Your task to perform on an android device: Go to internet settings Image 0: 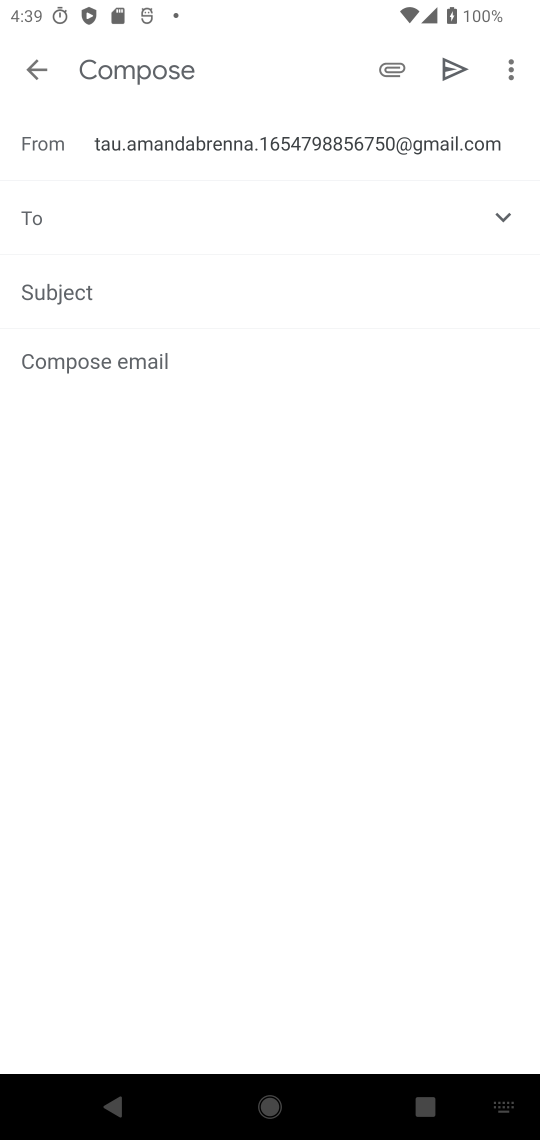
Step 0: press home button
Your task to perform on an android device: Go to internet settings Image 1: 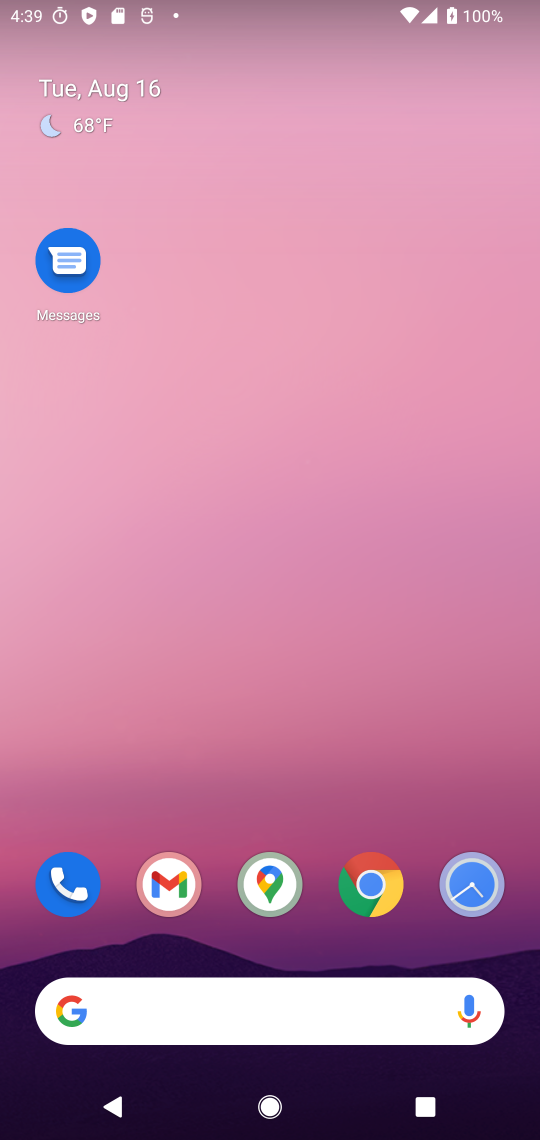
Step 1: drag from (206, 909) to (236, 715)
Your task to perform on an android device: Go to internet settings Image 2: 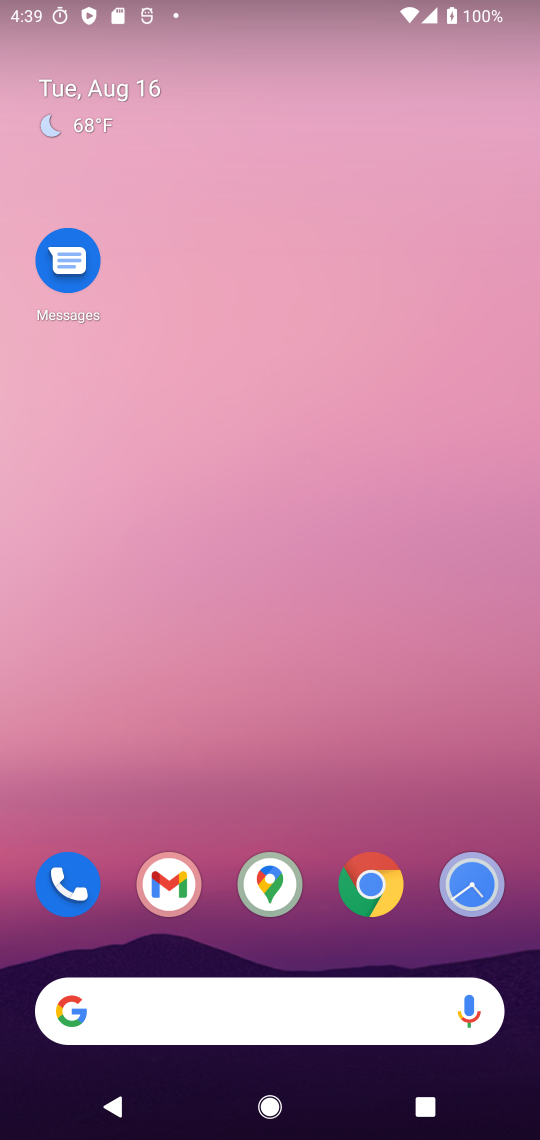
Step 2: drag from (42, 1072) to (348, 469)
Your task to perform on an android device: Go to internet settings Image 3: 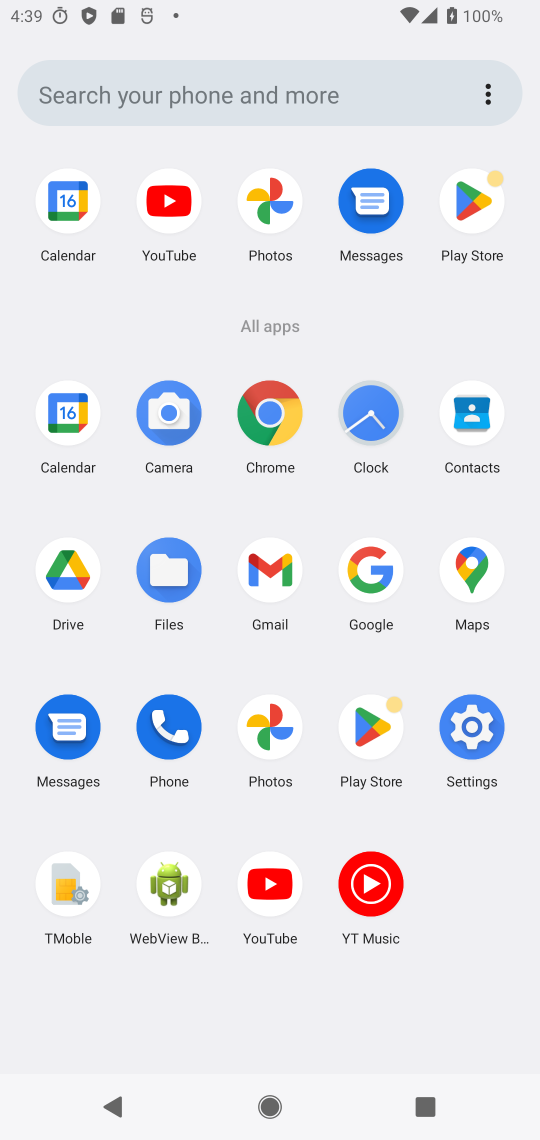
Step 3: click (480, 746)
Your task to perform on an android device: Go to internet settings Image 4: 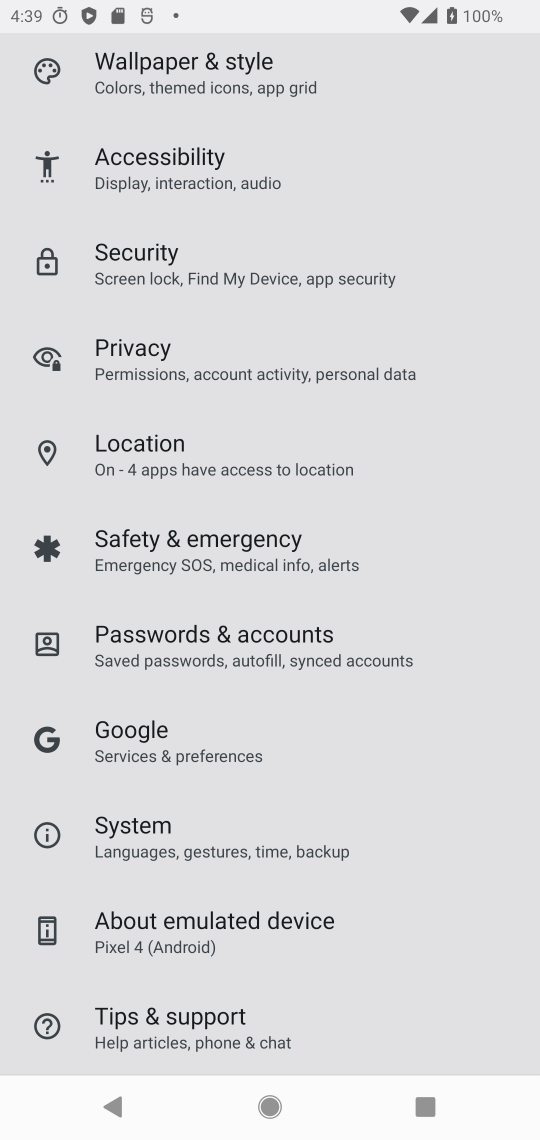
Step 4: drag from (444, 89) to (390, 663)
Your task to perform on an android device: Go to internet settings Image 5: 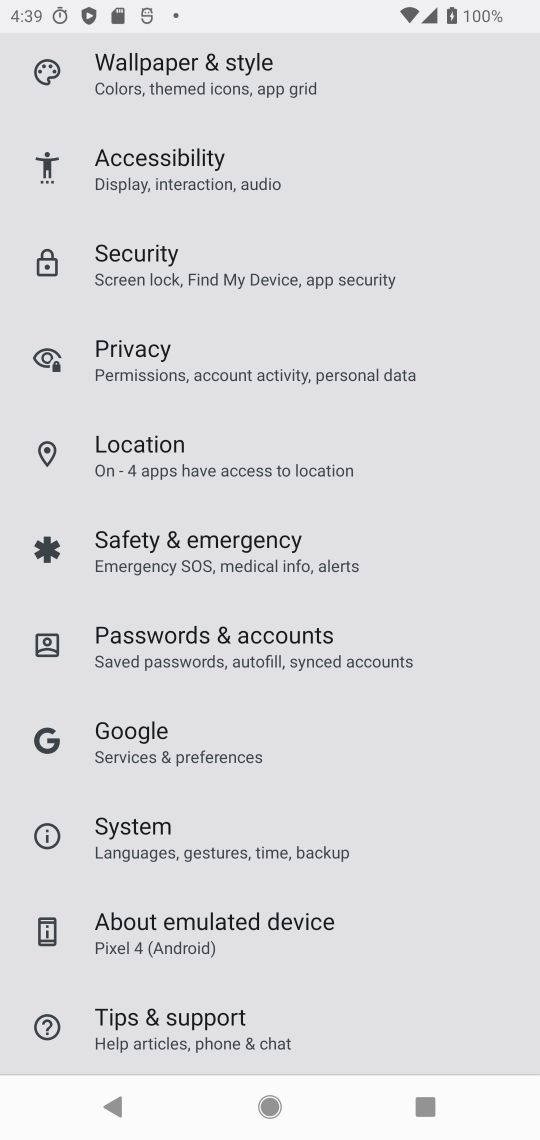
Step 5: drag from (422, 65) to (445, 681)
Your task to perform on an android device: Go to internet settings Image 6: 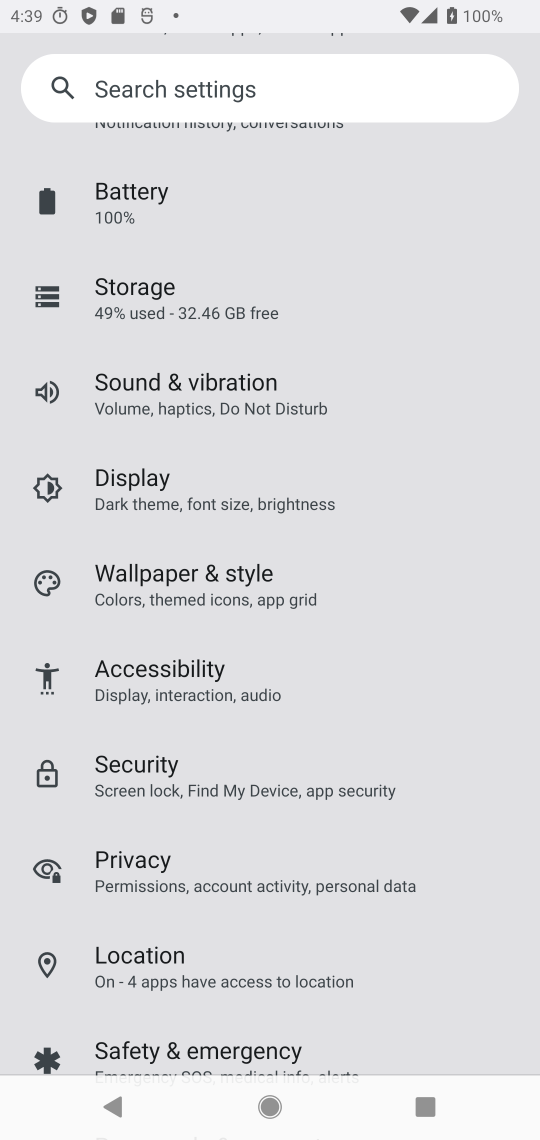
Step 6: drag from (461, 158) to (401, 855)
Your task to perform on an android device: Go to internet settings Image 7: 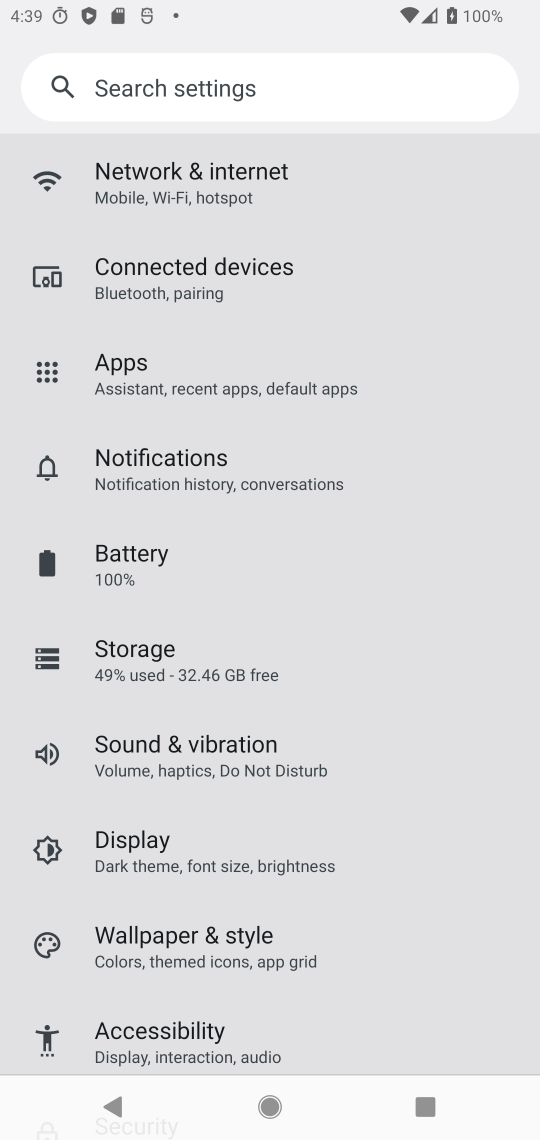
Step 7: click (219, 179)
Your task to perform on an android device: Go to internet settings Image 8: 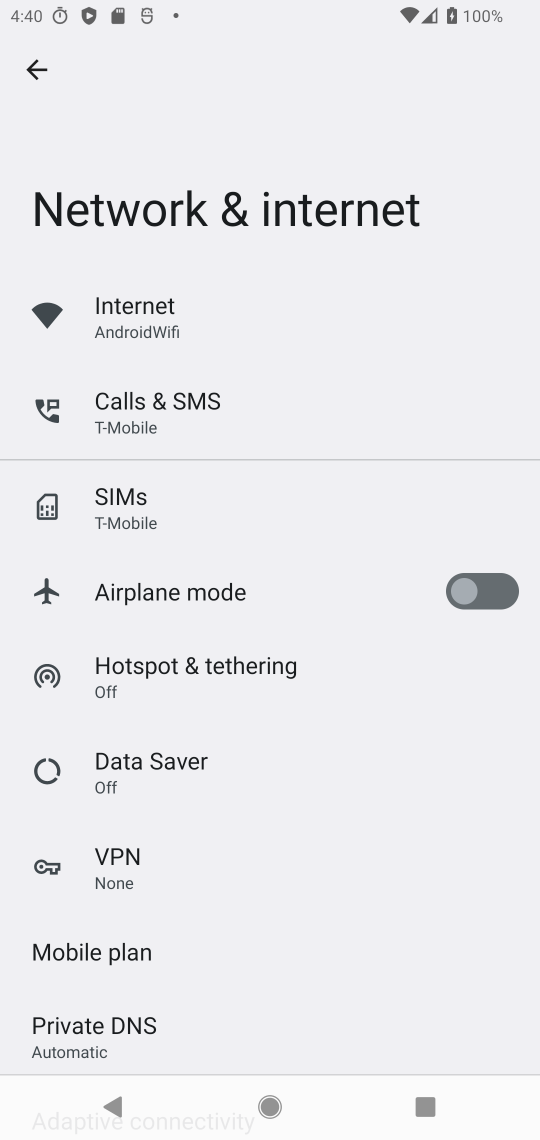
Step 8: task complete